Your task to perform on an android device: add a label to a message in the gmail app Image 0: 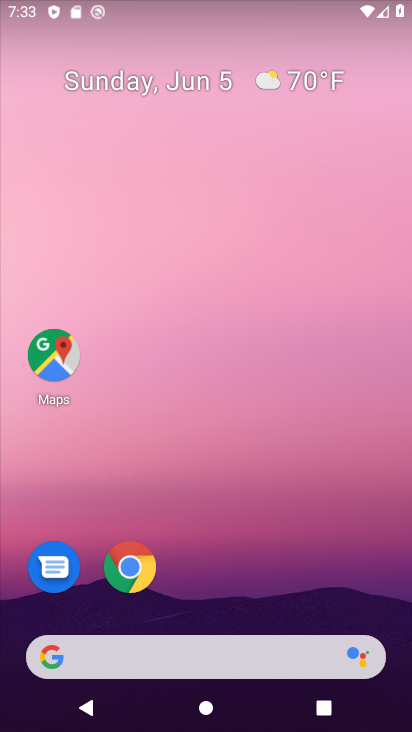
Step 0: drag from (193, 595) to (224, 49)
Your task to perform on an android device: add a label to a message in the gmail app Image 1: 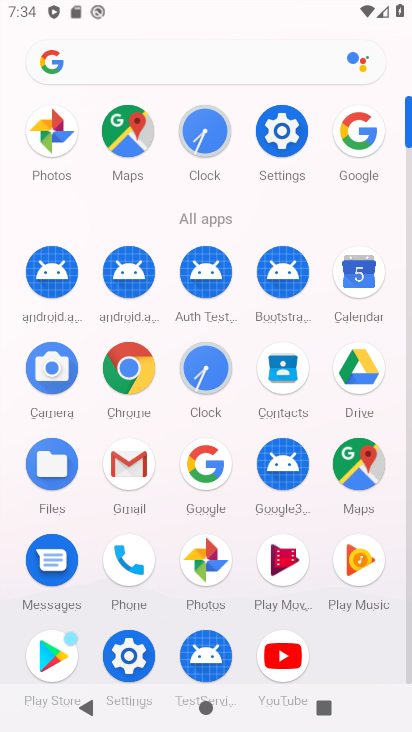
Step 1: click (123, 465)
Your task to perform on an android device: add a label to a message in the gmail app Image 2: 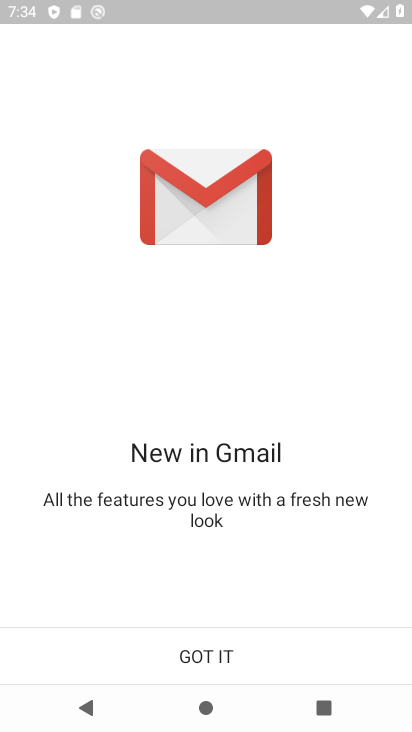
Step 2: click (202, 653)
Your task to perform on an android device: add a label to a message in the gmail app Image 3: 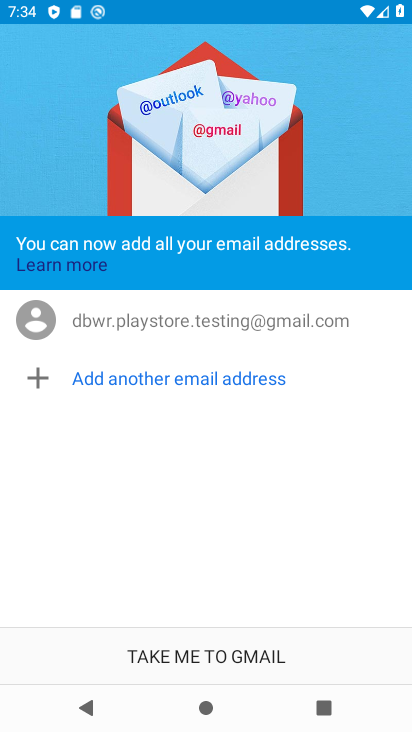
Step 3: click (215, 656)
Your task to perform on an android device: add a label to a message in the gmail app Image 4: 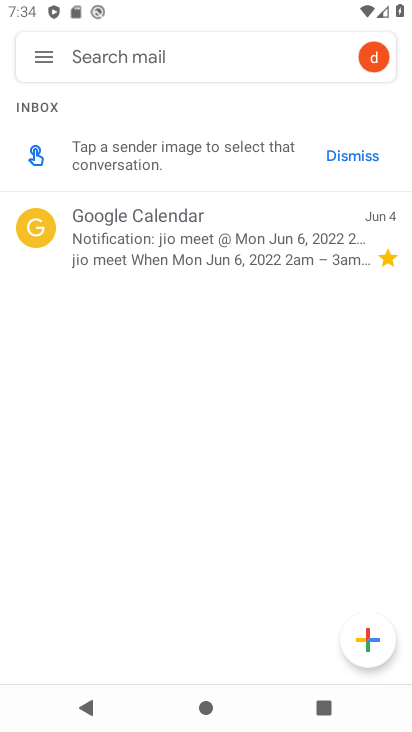
Step 4: click (301, 255)
Your task to perform on an android device: add a label to a message in the gmail app Image 5: 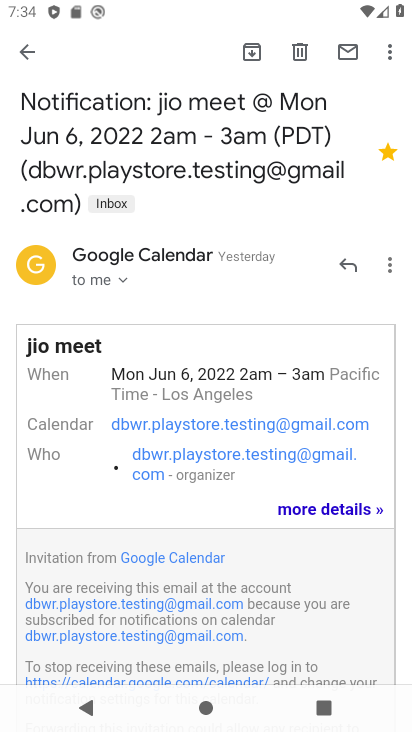
Step 5: click (121, 206)
Your task to perform on an android device: add a label to a message in the gmail app Image 6: 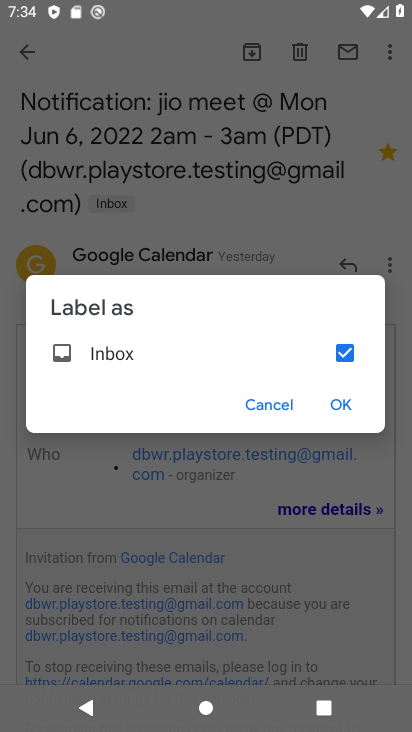
Step 6: task complete